Your task to perform on an android device: allow cookies in the chrome app Image 0: 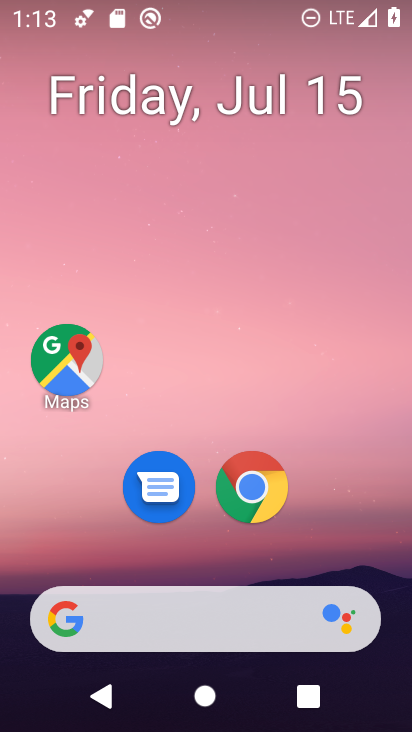
Step 0: drag from (229, 631) to (266, 229)
Your task to perform on an android device: allow cookies in the chrome app Image 1: 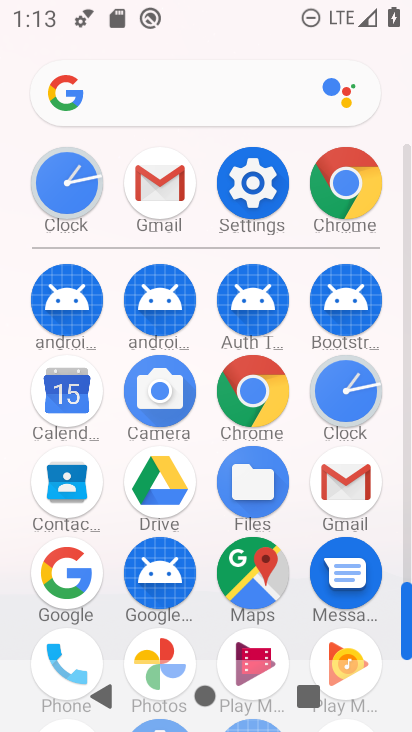
Step 1: click (245, 408)
Your task to perform on an android device: allow cookies in the chrome app Image 2: 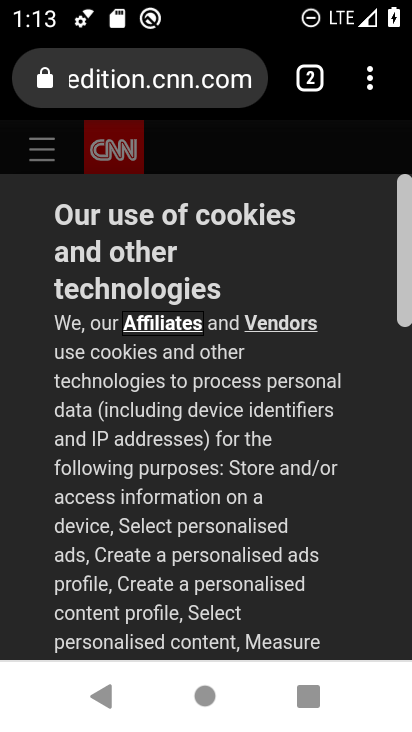
Step 2: click (373, 93)
Your task to perform on an android device: allow cookies in the chrome app Image 3: 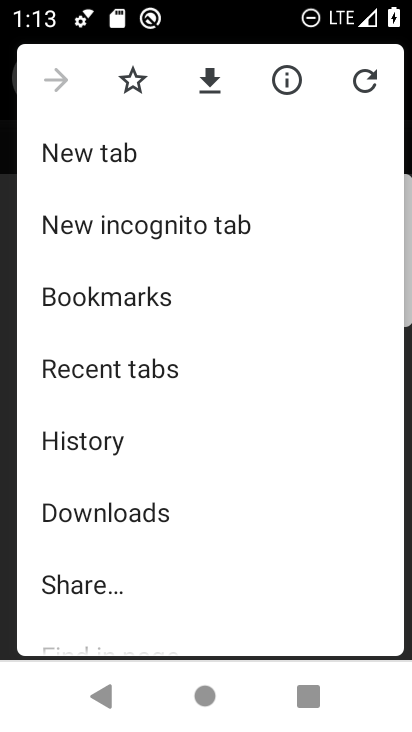
Step 3: drag from (183, 478) to (208, 212)
Your task to perform on an android device: allow cookies in the chrome app Image 4: 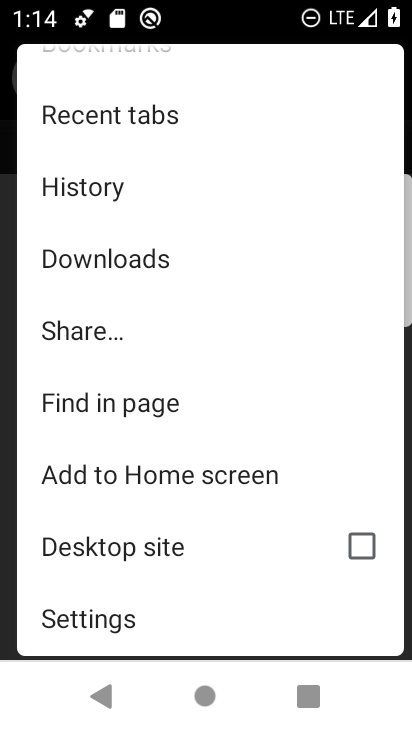
Step 4: drag from (179, 477) to (180, 224)
Your task to perform on an android device: allow cookies in the chrome app Image 5: 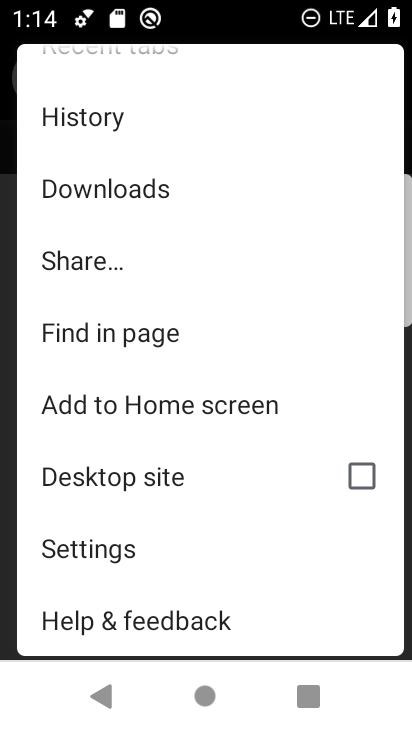
Step 5: click (100, 546)
Your task to perform on an android device: allow cookies in the chrome app Image 6: 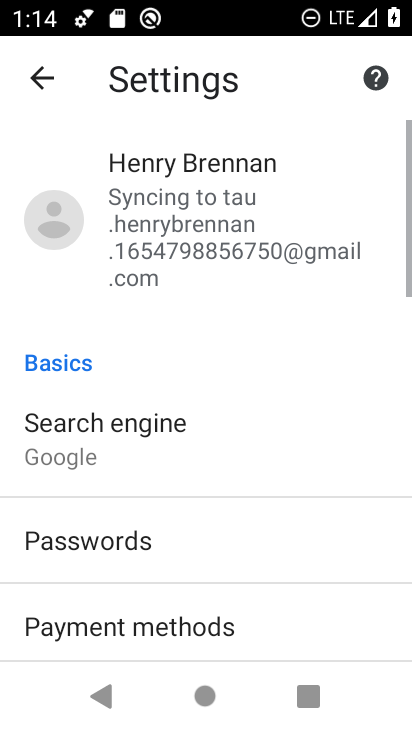
Step 6: drag from (100, 546) to (141, 238)
Your task to perform on an android device: allow cookies in the chrome app Image 7: 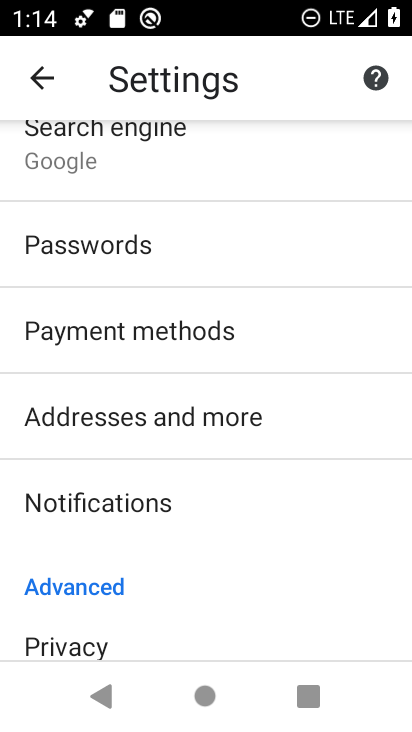
Step 7: drag from (100, 561) to (139, 260)
Your task to perform on an android device: allow cookies in the chrome app Image 8: 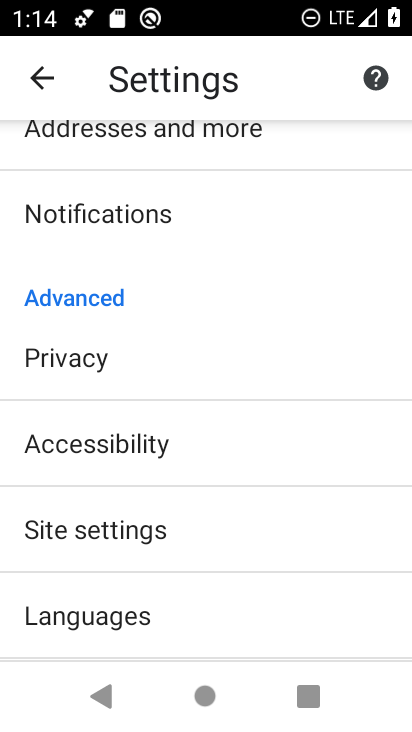
Step 8: click (110, 535)
Your task to perform on an android device: allow cookies in the chrome app Image 9: 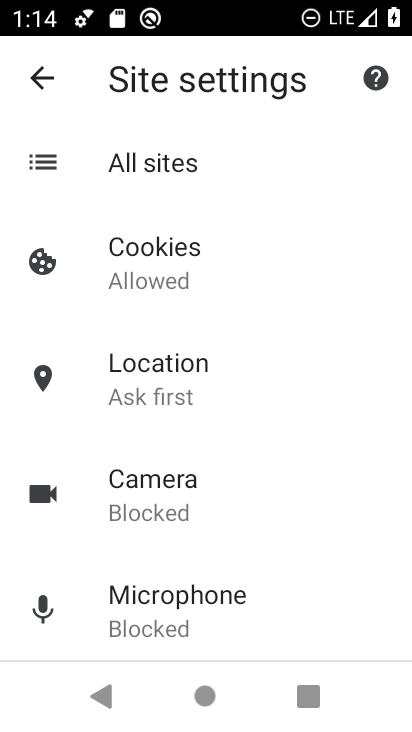
Step 9: click (211, 285)
Your task to perform on an android device: allow cookies in the chrome app Image 10: 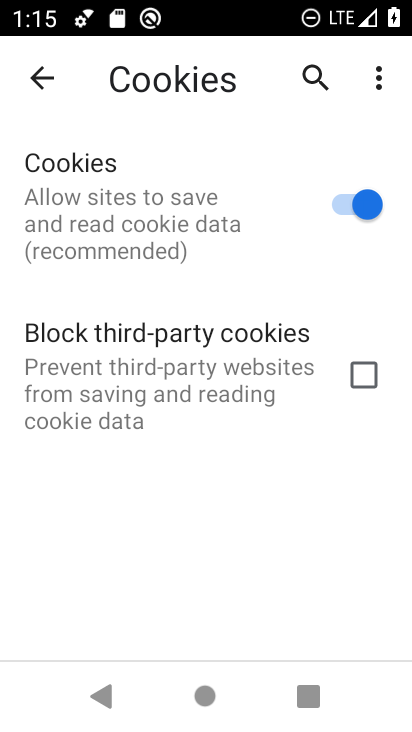
Step 10: task complete